Your task to perform on an android device: open app "Google News" (install if not already installed) Image 0: 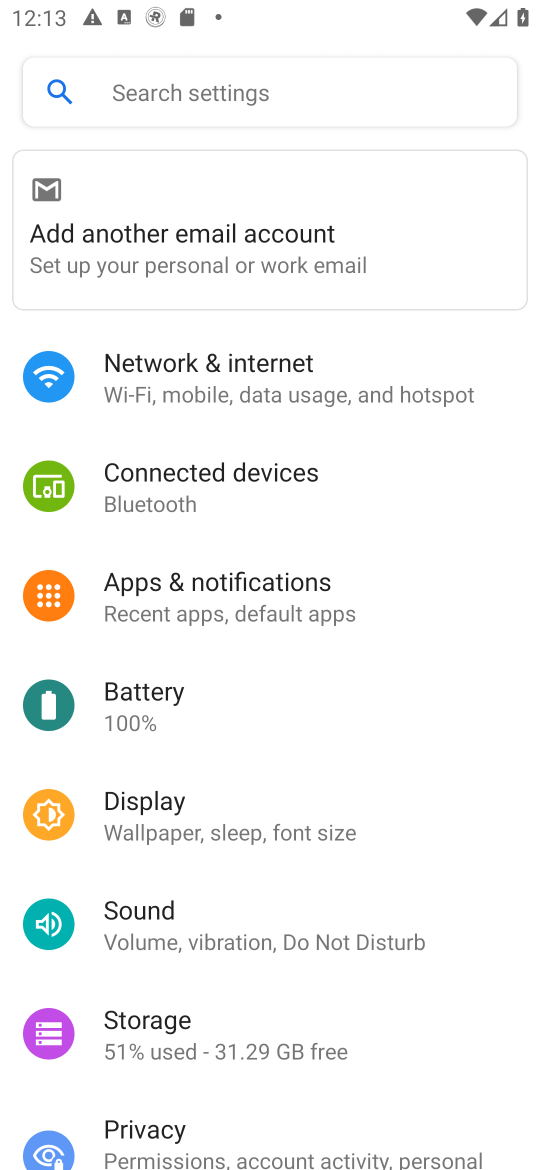
Step 0: press home button
Your task to perform on an android device: open app "Google News" (install if not already installed) Image 1: 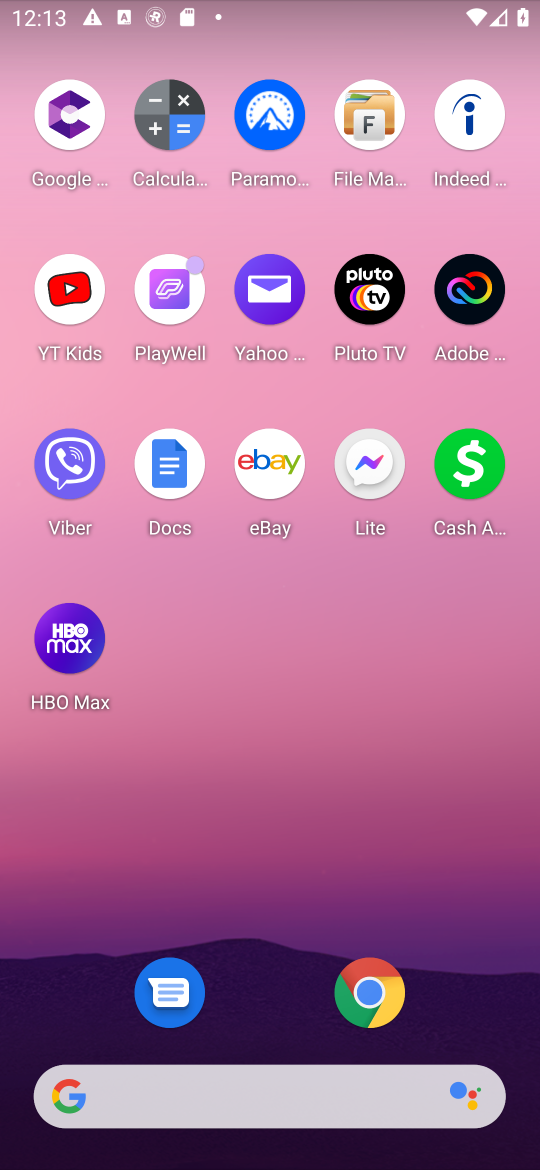
Step 1: press home button
Your task to perform on an android device: open app "Google News" (install if not already installed) Image 2: 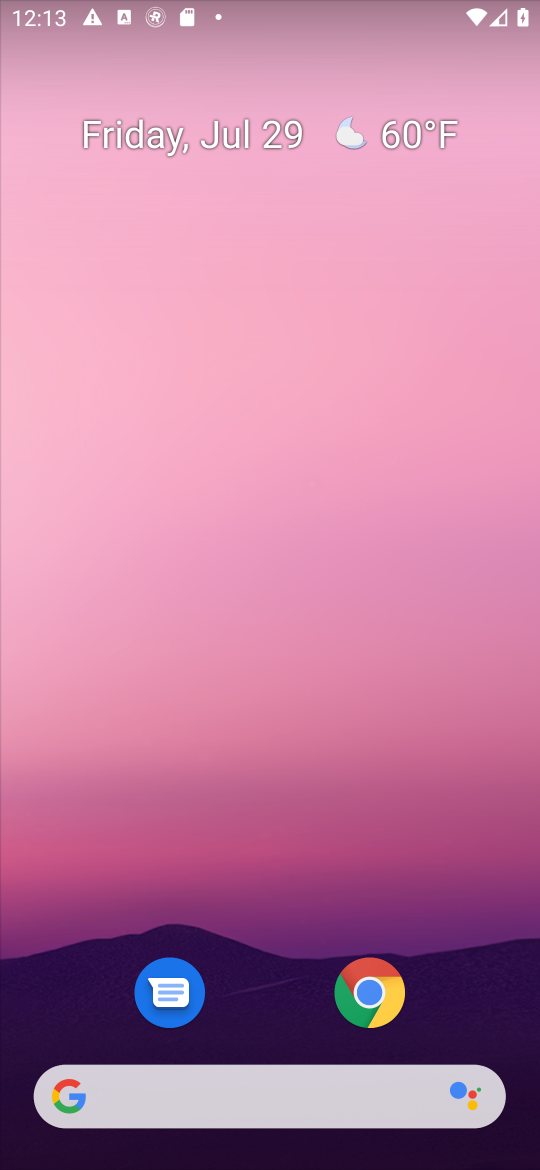
Step 2: drag from (247, 1098) to (335, 76)
Your task to perform on an android device: open app "Google News" (install if not already installed) Image 3: 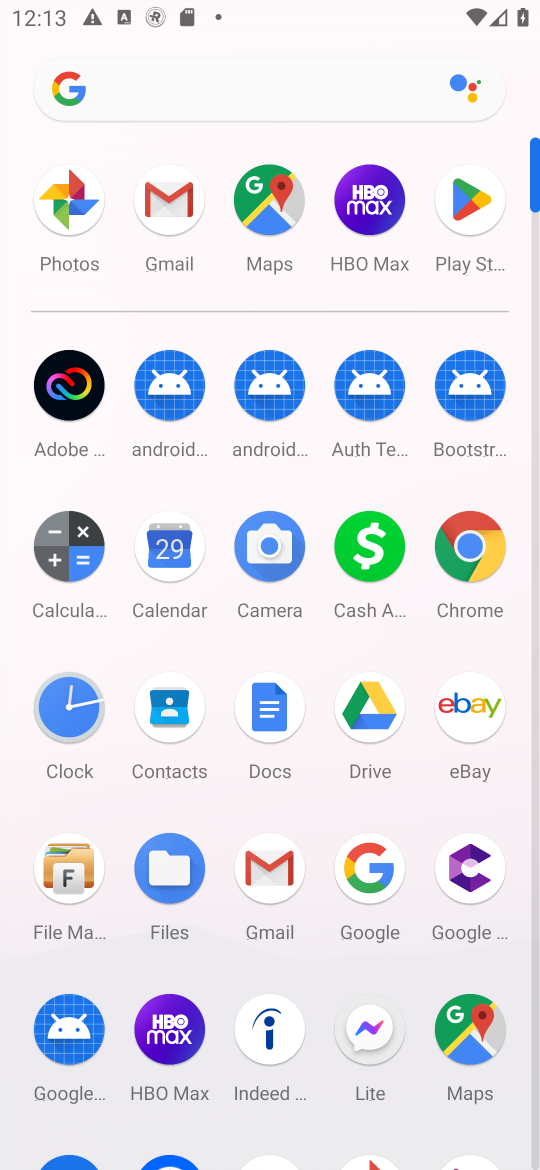
Step 3: click (469, 197)
Your task to perform on an android device: open app "Google News" (install if not already installed) Image 4: 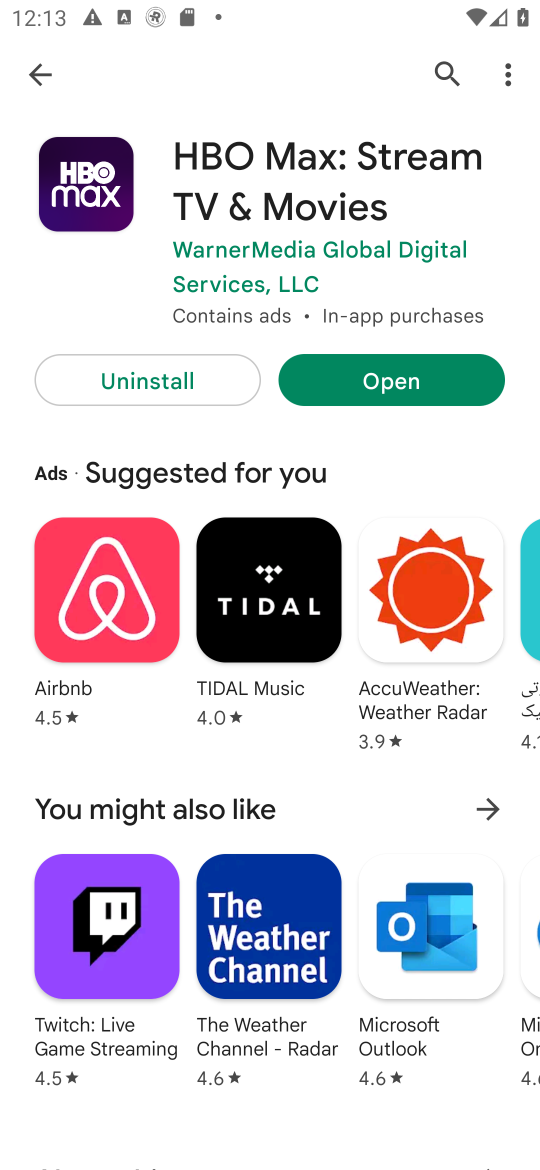
Step 4: click (443, 60)
Your task to perform on an android device: open app "Google News" (install if not already installed) Image 5: 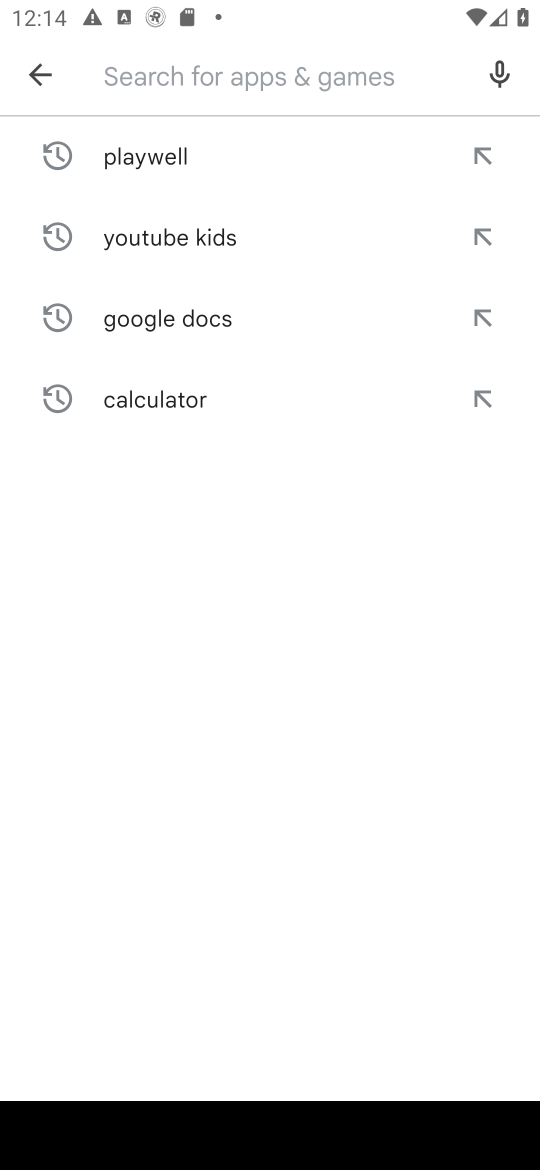
Step 5: type "Google News"
Your task to perform on an android device: open app "Google News" (install if not already installed) Image 6: 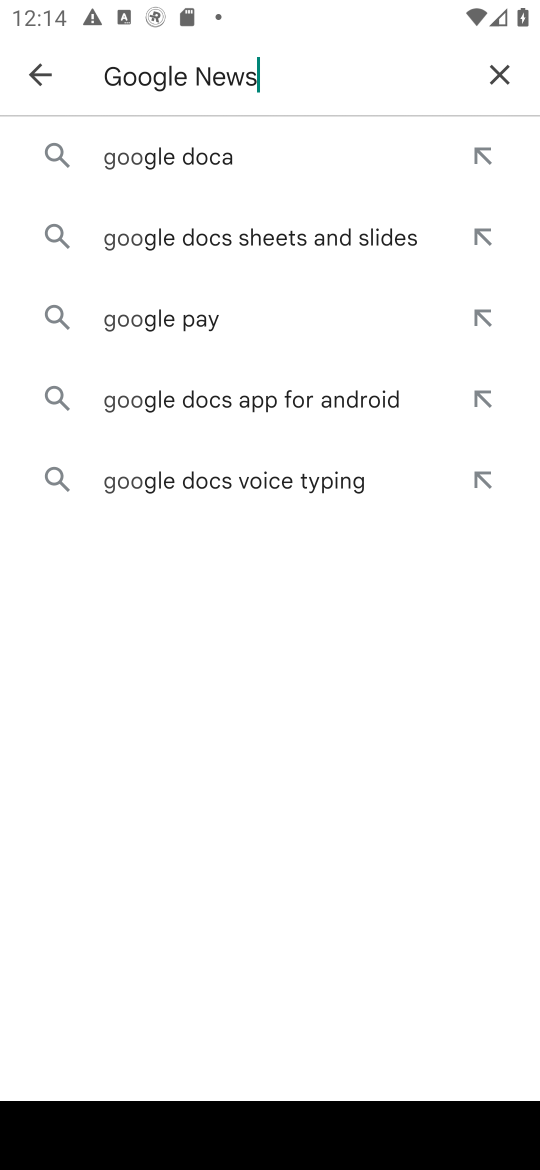
Step 6: type ""
Your task to perform on an android device: open app "Google News" (install if not already installed) Image 7: 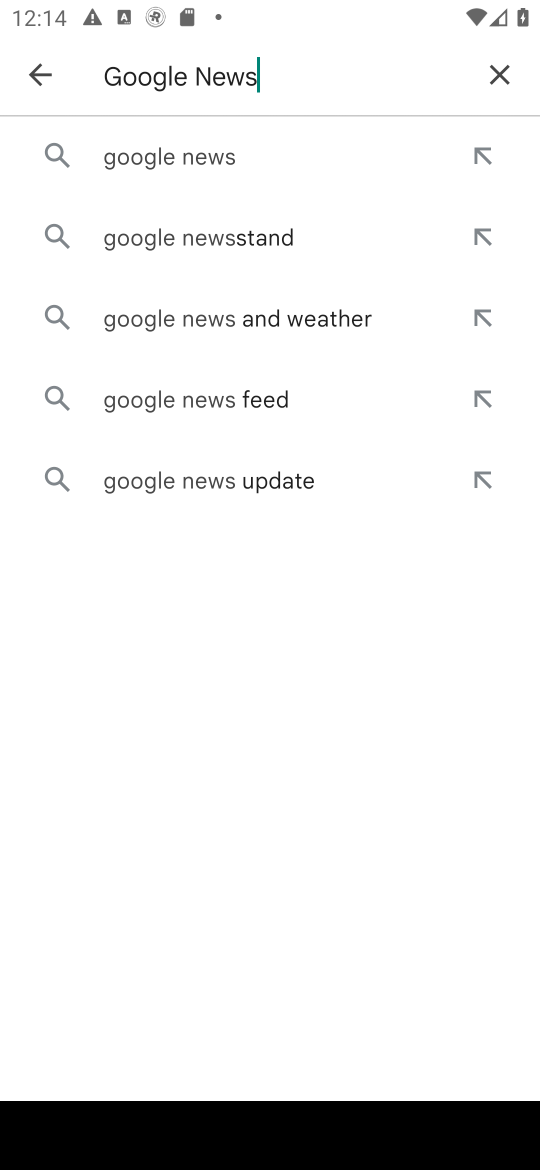
Step 7: click (200, 165)
Your task to perform on an android device: open app "Google News" (install if not already installed) Image 8: 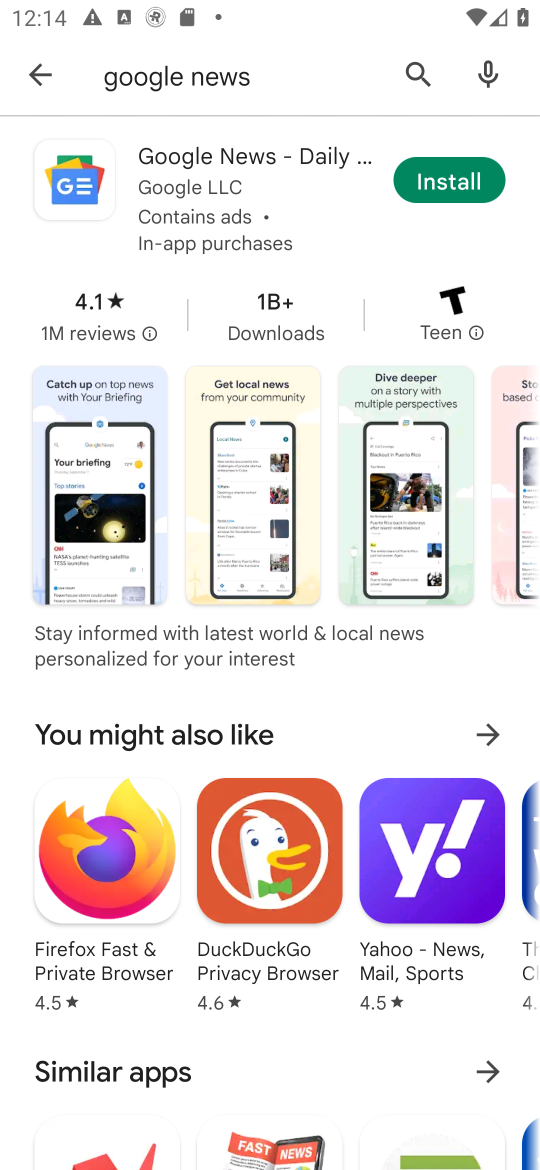
Step 8: click (461, 188)
Your task to perform on an android device: open app "Google News" (install if not already installed) Image 9: 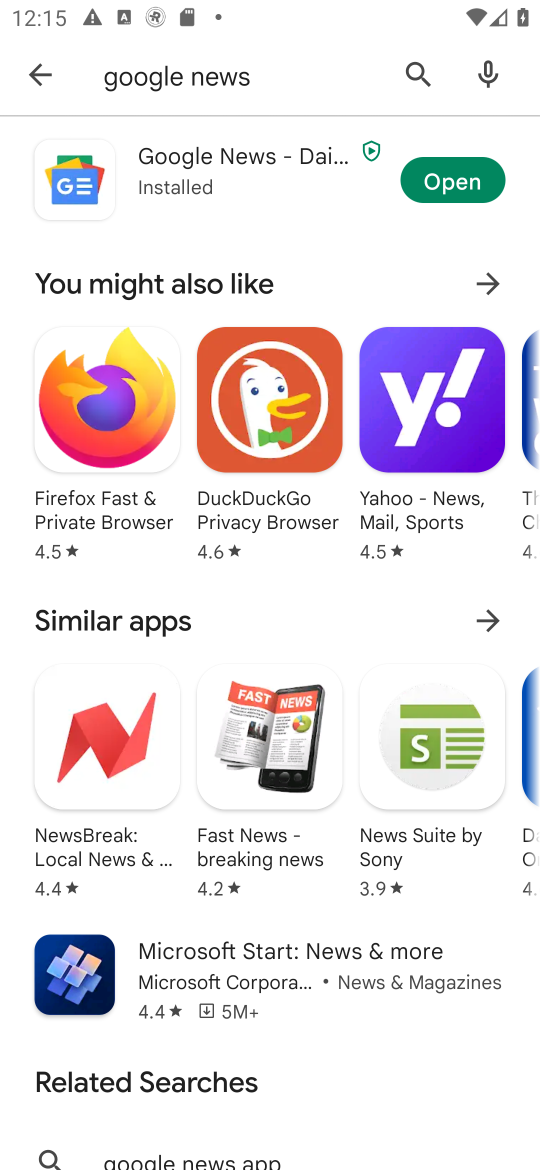
Step 9: click (461, 183)
Your task to perform on an android device: open app "Google News" (install if not already installed) Image 10: 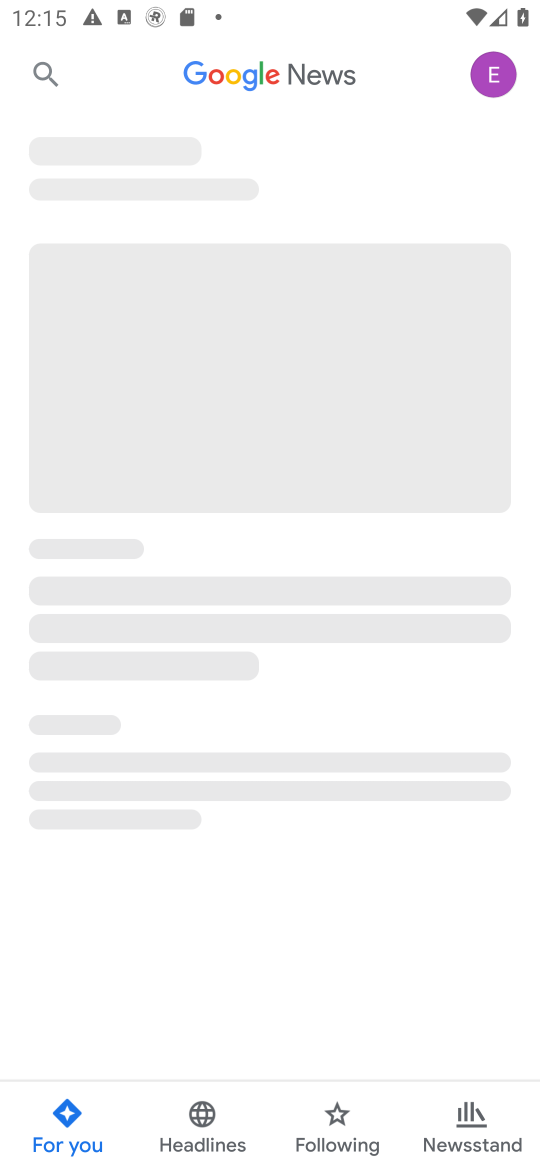
Step 10: task complete